Your task to perform on an android device: open chrome and create a bookmark for the current page Image 0: 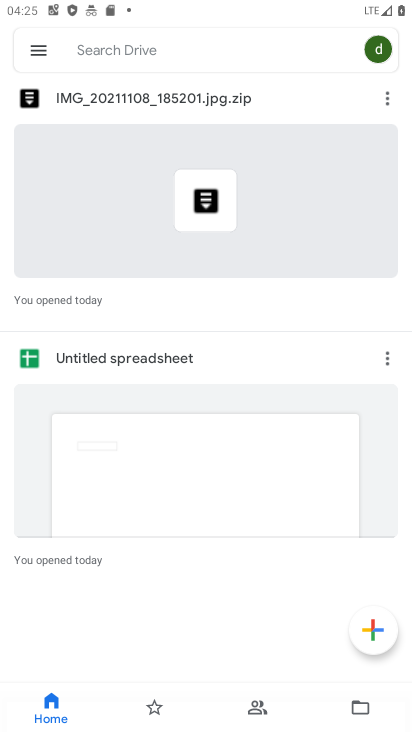
Step 0: press home button
Your task to perform on an android device: open chrome and create a bookmark for the current page Image 1: 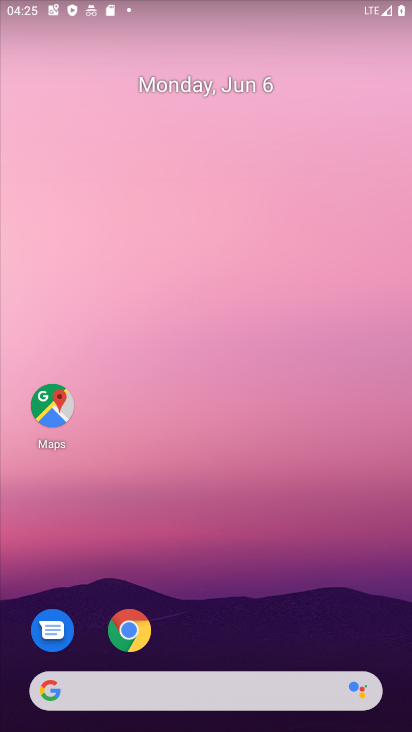
Step 1: click (128, 630)
Your task to perform on an android device: open chrome and create a bookmark for the current page Image 2: 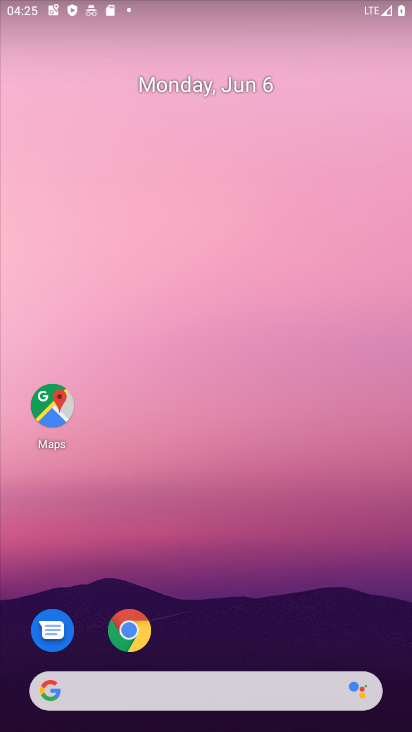
Step 2: click (124, 629)
Your task to perform on an android device: open chrome and create a bookmark for the current page Image 3: 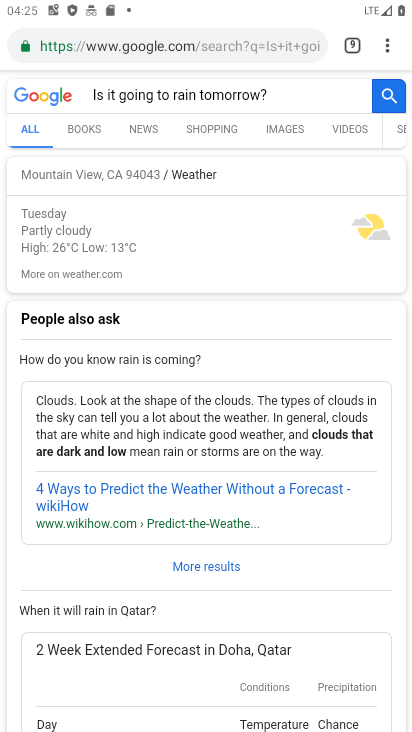
Step 3: drag from (389, 32) to (245, 492)
Your task to perform on an android device: open chrome and create a bookmark for the current page Image 4: 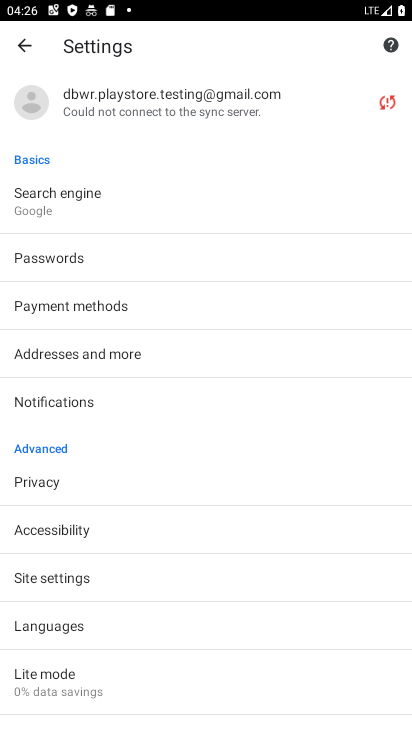
Step 4: click (3, 41)
Your task to perform on an android device: open chrome and create a bookmark for the current page Image 5: 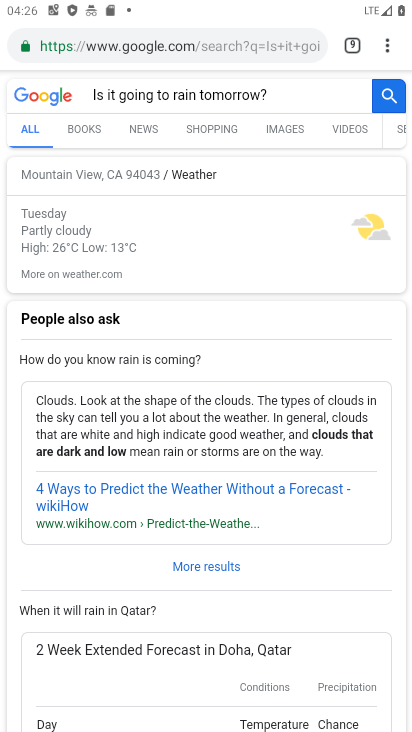
Step 5: task complete